Your task to perform on an android device: toggle data saver in the chrome app Image 0: 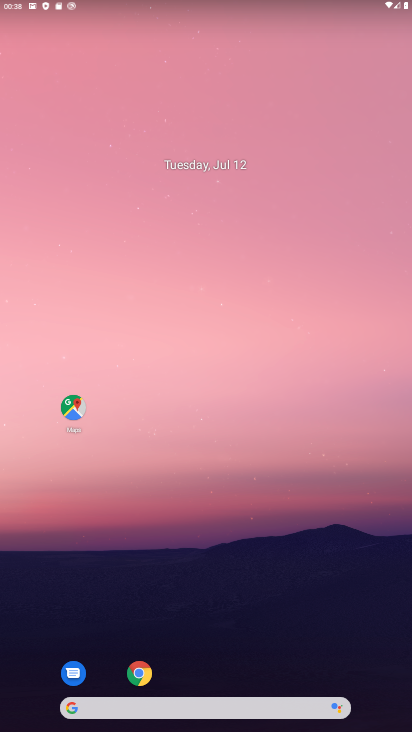
Step 0: press home button
Your task to perform on an android device: toggle data saver in the chrome app Image 1: 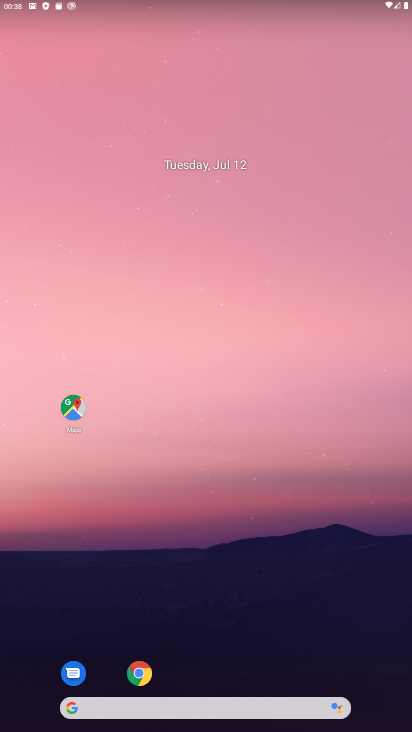
Step 1: click (137, 679)
Your task to perform on an android device: toggle data saver in the chrome app Image 2: 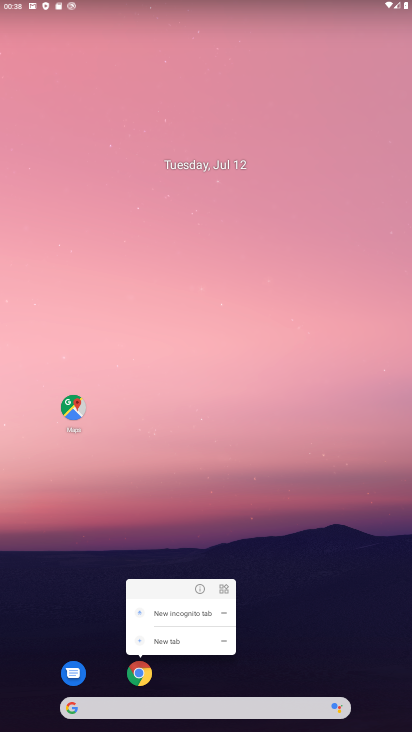
Step 2: click (141, 682)
Your task to perform on an android device: toggle data saver in the chrome app Image 3: 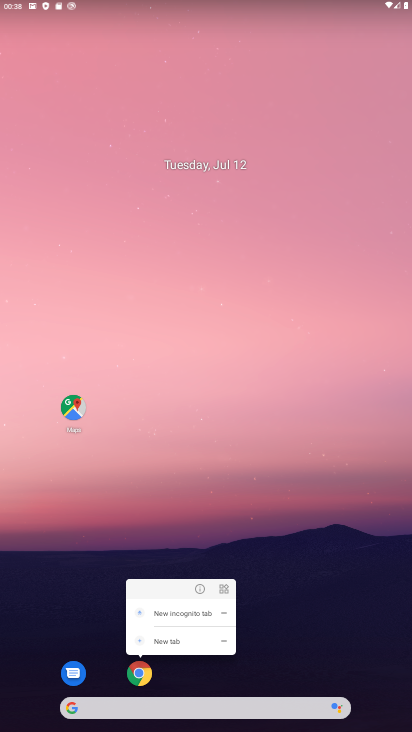
Step 3: click (138, 673)
Your task to perform on an android device: toggle data saver in the chrome app Image 4: 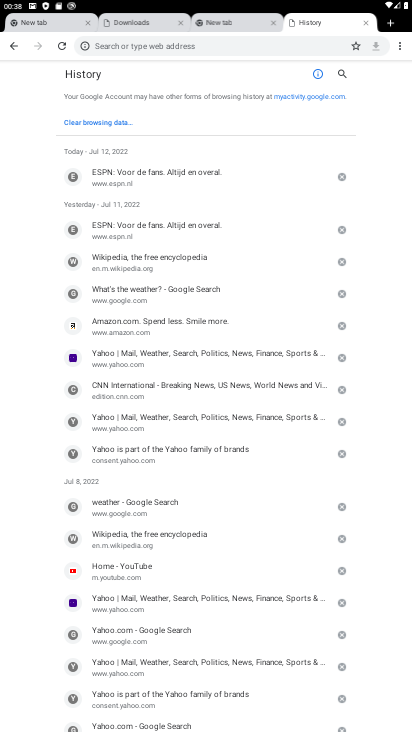
Step 4: drag from (394, 39) to (317, 211)
Your task to perform on an android device: toggle data saver in the chrome app Image 5: 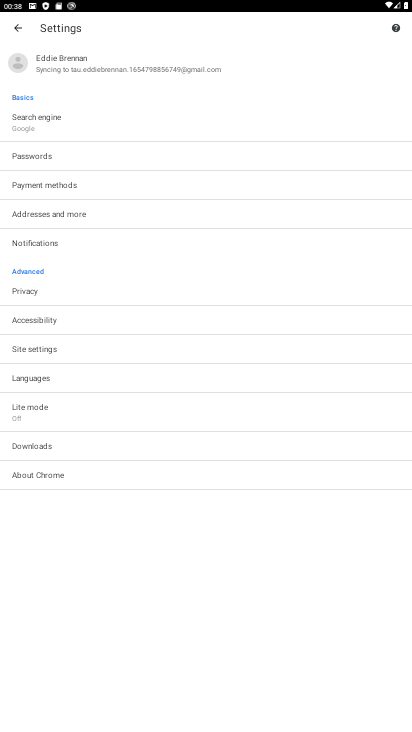
Step 5: click (35, 414)
Your task to perform on an android device: toggle data saver in the chrome app Image 6: 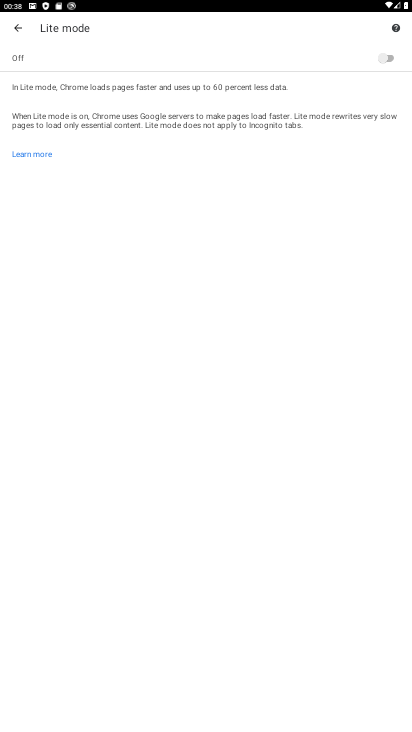
Step 6: click (379, 66)
Your task to perform on an android device: toggle data saver in the chrome app Image 7: 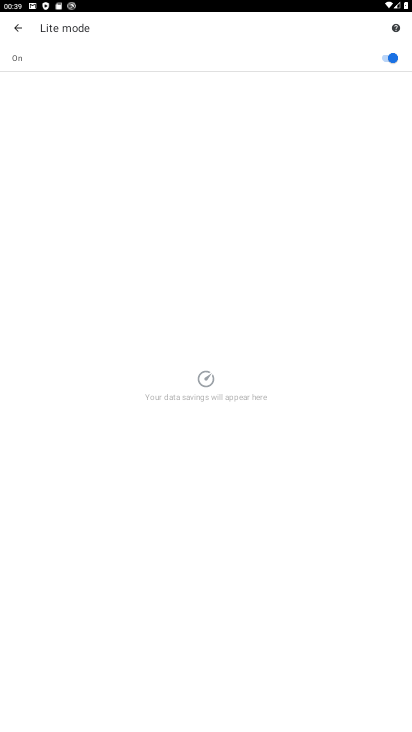
Step 7: task complete